Your task to perform on an android device: change the clock display to digital Image 0: 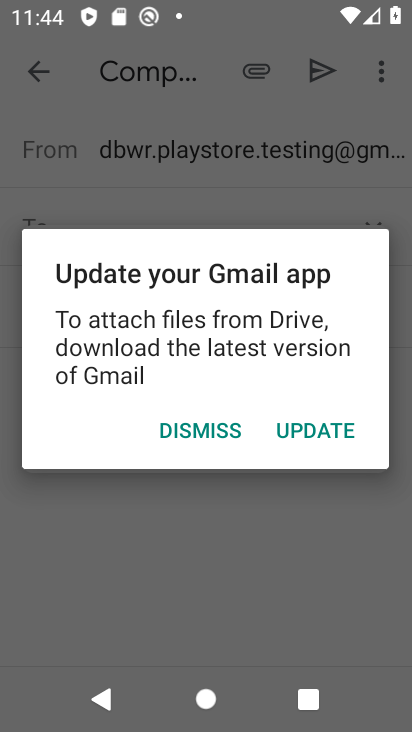
Step 0: press home button
Your task to perform on an android device: change the clock display to digital Image 1: 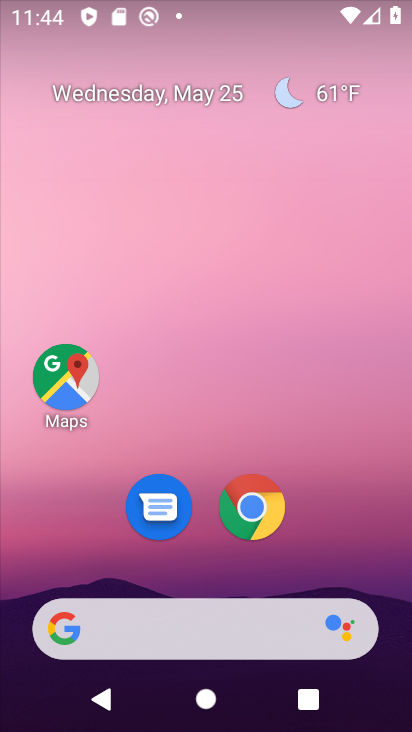
Step 1: drag from (344, 555) to (389, 127)
Your task to perform on an android device: change the clock display to digital Image 2: 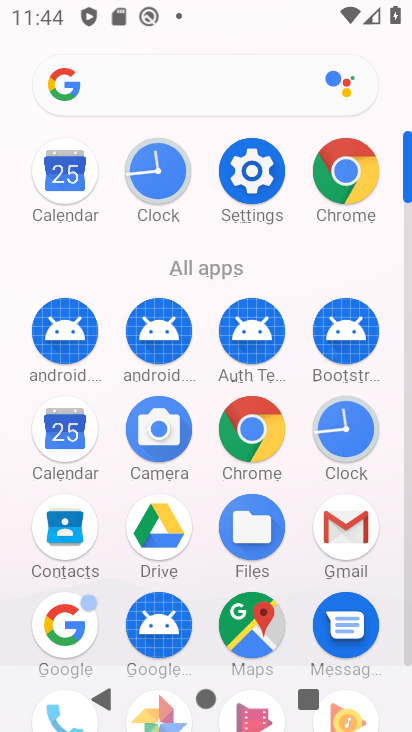
Step 2: click (145, 194)
Your task to perform on an android device: change the clock display to digital Image 3: 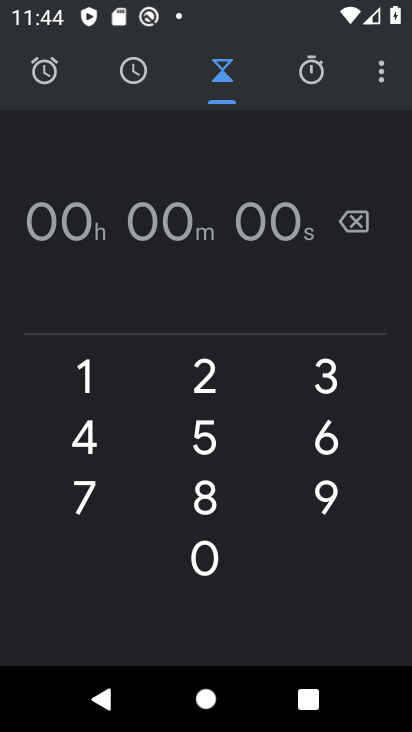
Step 3: click (372, 62)
Your task to perform on an android device: change the clock display to digital Image 4: 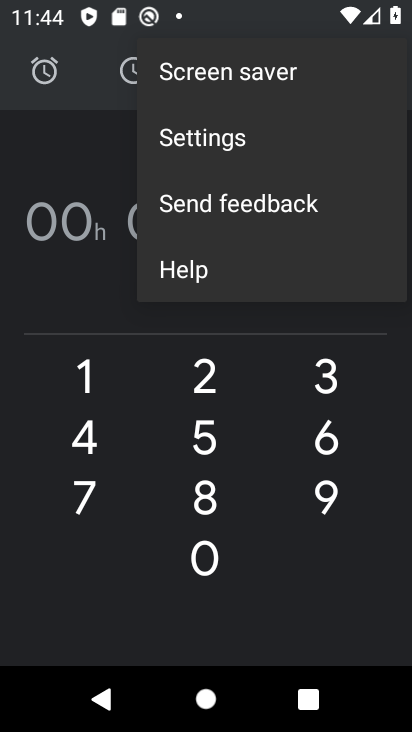
Step 4: click (264, 139)
Your task to perform on an android device: change the clock display to digital Image 5: 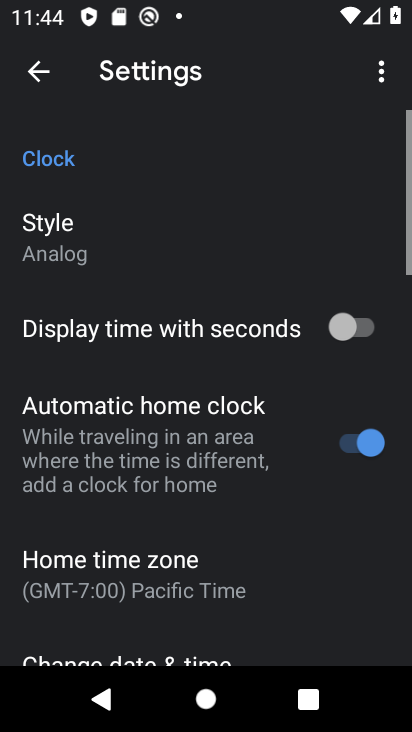
Step 5: click (113, 243)
Your task to perform on an android device: change the clock display to digital Image 6: 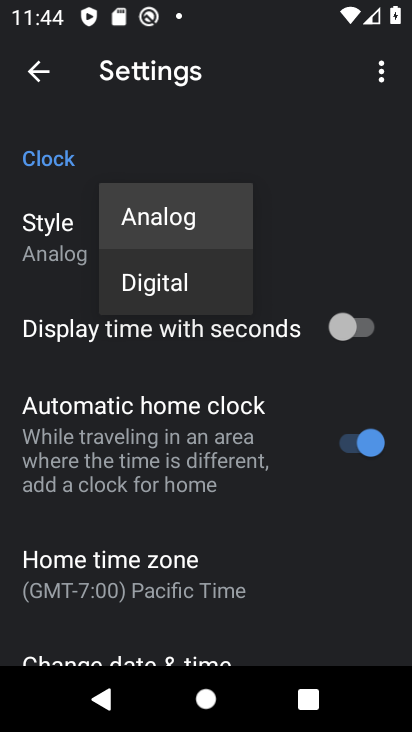
Step 6: click (183, 274)
Your task to perform on an android device: change the clock display to digital Image 7: 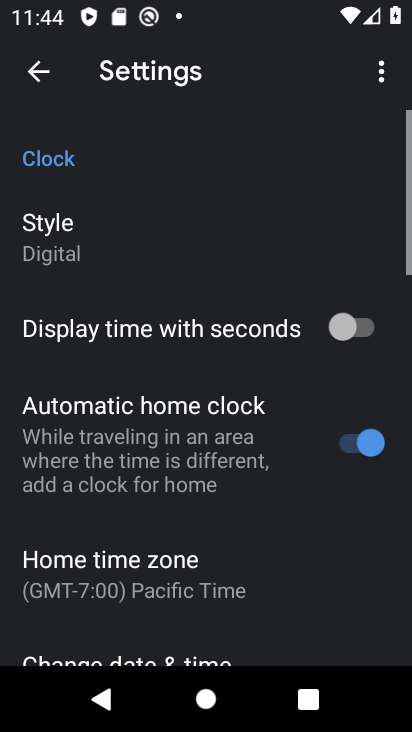
Step 7: task complete